Your task to perform on an android device: change your default location settings in chrome Image 0: 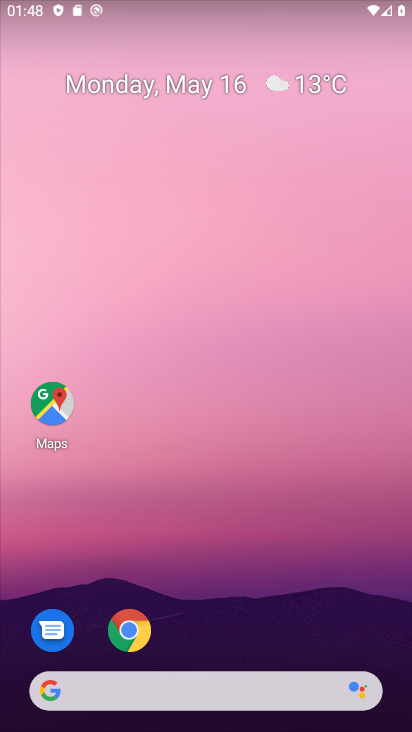
Step 0: drag from (379, 606) to (344, 237)
Your task to perform on an android device: change your default location settings in chrome Image 1: 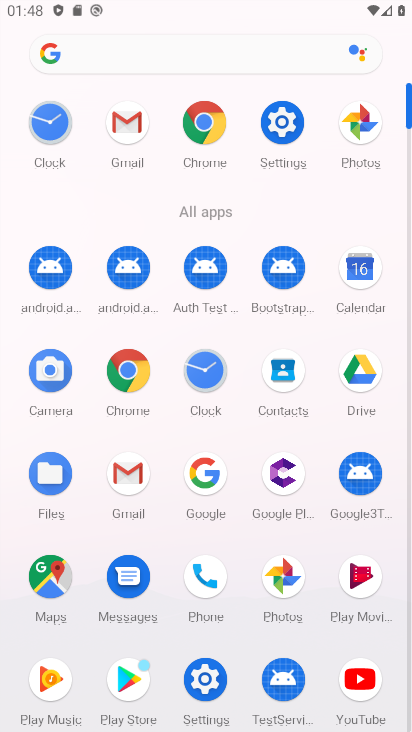
Step 1: click (121, 353)
Your task to perform on an android device: change your default location settings in chrome Image 2: 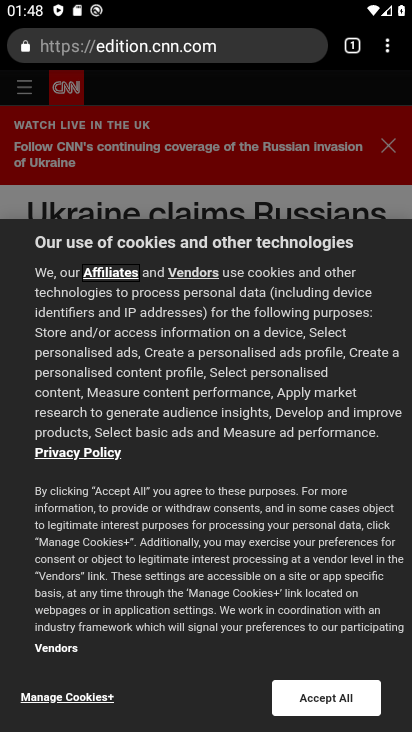
Step 2: click (380, 53)
Your task to perform on an android device: change your default location settings in chrome Image 3: 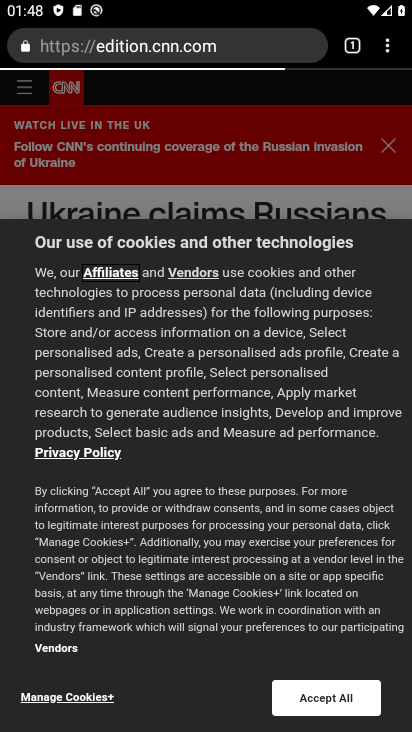
Step 3: drag from (385, 54) to (282, 566)
Your task to perform on an android device: change your default location settings in chrome Image 4: 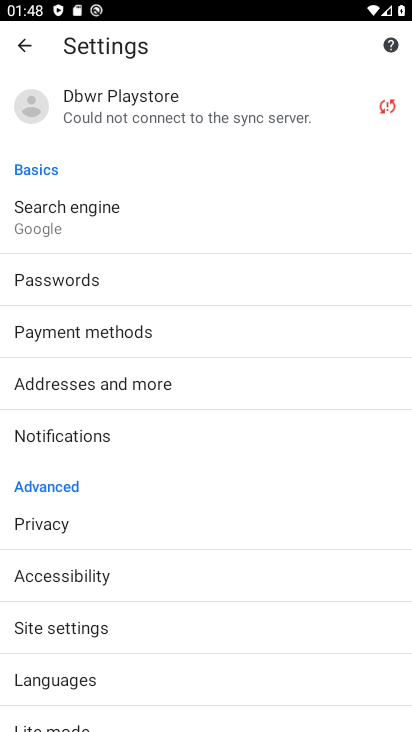
Step 4: drag from (140, 691) to (202, 379)
Your task to perform on an android device: change your default location settings in chrome Image 5: 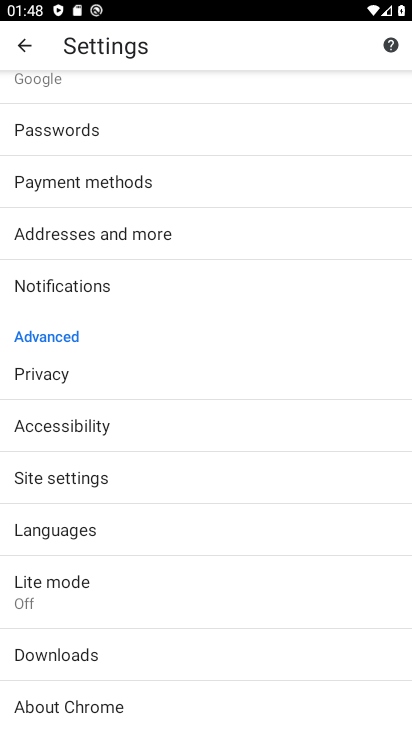
Step 5: drag from (123, 634) to (207, 396)
Your task to perform on an android device: change your default location settings in chrome Image 6: 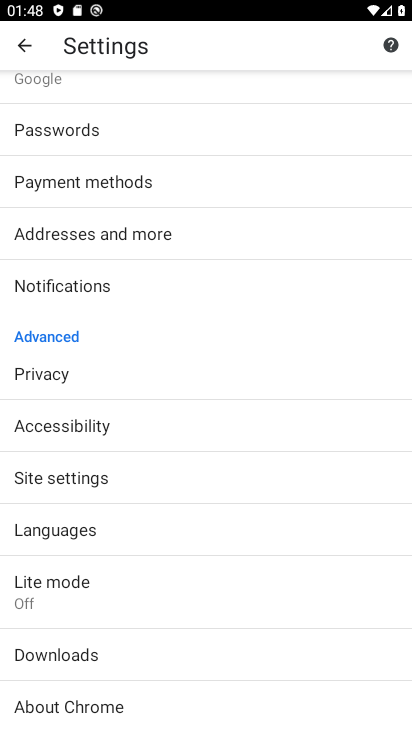
Step 6: click (103, 463)
Your task to perform on an android device: change your default location settings in chrome Image 7: 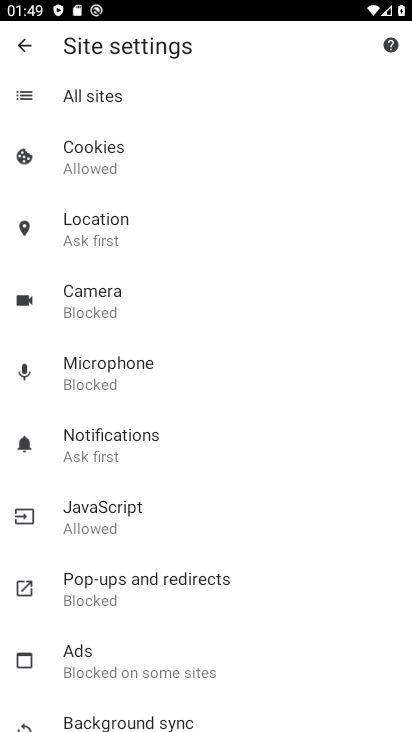
Step 7: click (123, 222)
Your task to perform on an android device: change your default location settings in chrome Image 8: 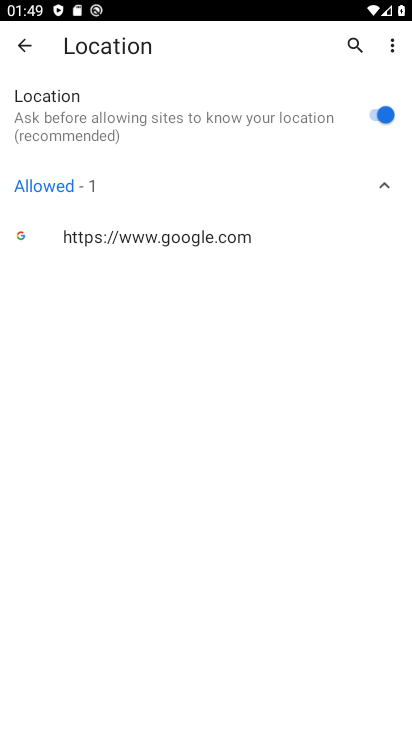
Step 8: click (373, 126)
Your task to perform on an android device: change your default location settings in chrome Image 9: 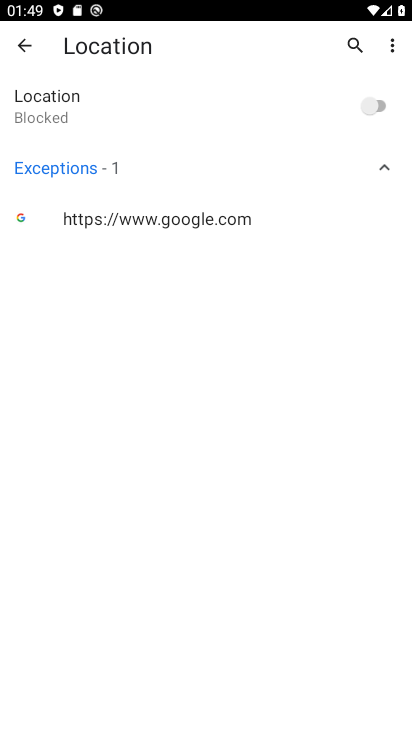
Step 9: task complete